Your task to perform on an android device: toggle notification dots Image 0: 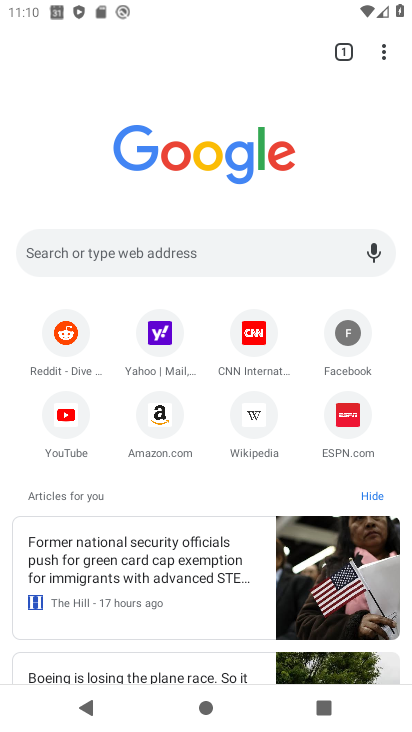
Step 0: press home button
Your task to perform on an android device: toggle notification dots Image 1: 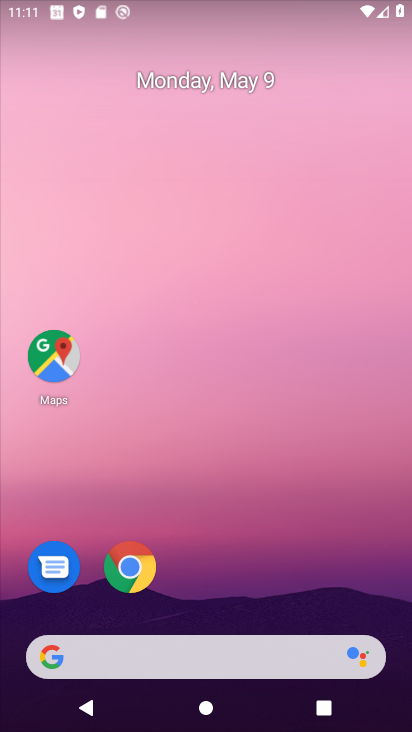
Step 1: drag from (395, 607) to (278, 41)
Your task to perform on an android device: toggle notification dots Image 2: 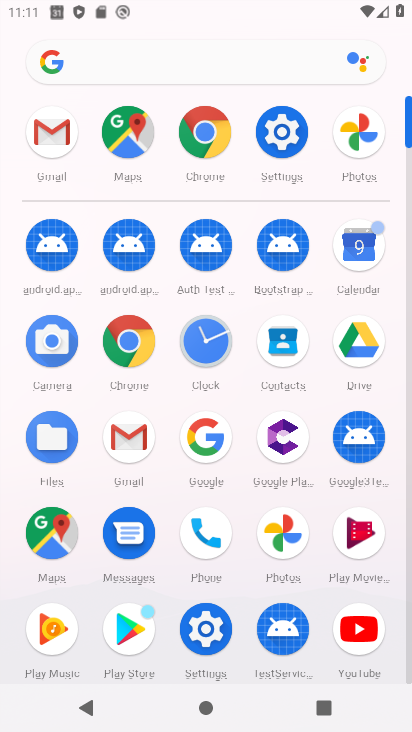
Step 2: click (216, 632)
Your task to perform on an android device: toggle notification dots Image 3: 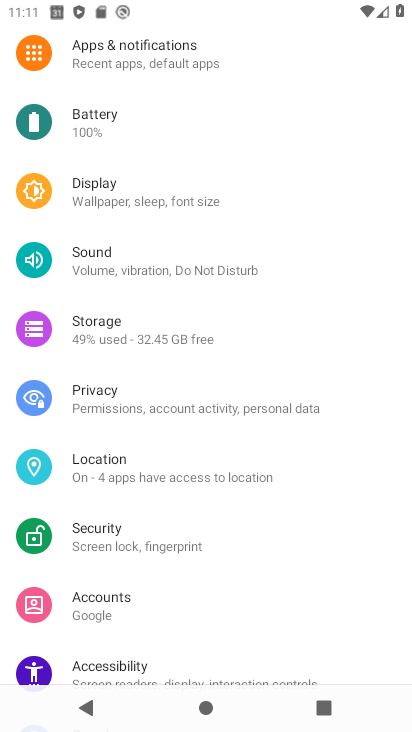
Step 3: click (183, 62)
Your task to perform on an android device: toggle notification dots Image 4: 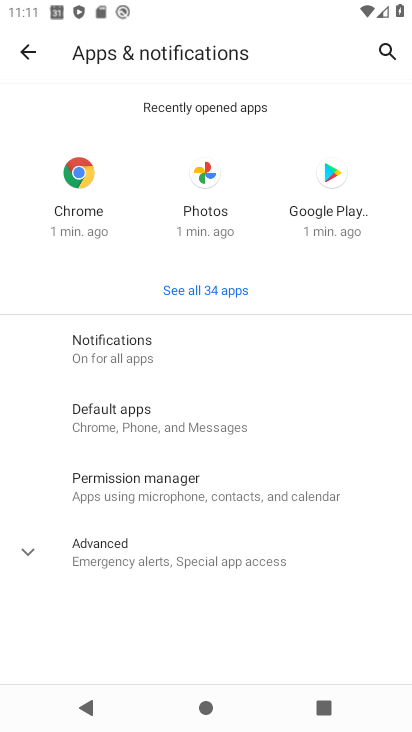
Step 4: click (175, 362)
Your task to perform on an android device: toggle notification dots Image 5: 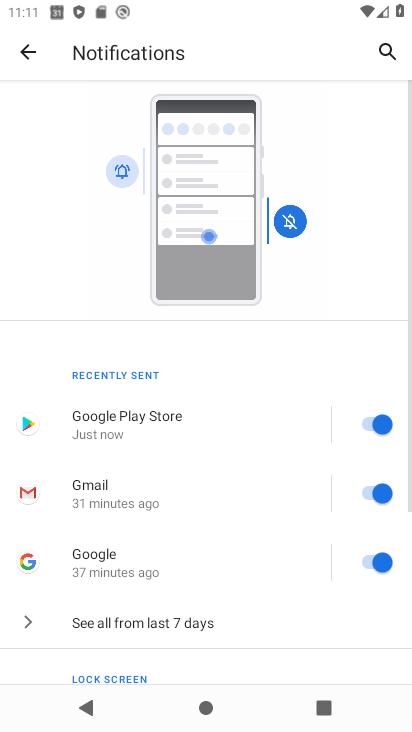
Step 5: drag from (175, 594) to (115, 39)
Your task to perform on an android device: toggle notification dots Image 6: 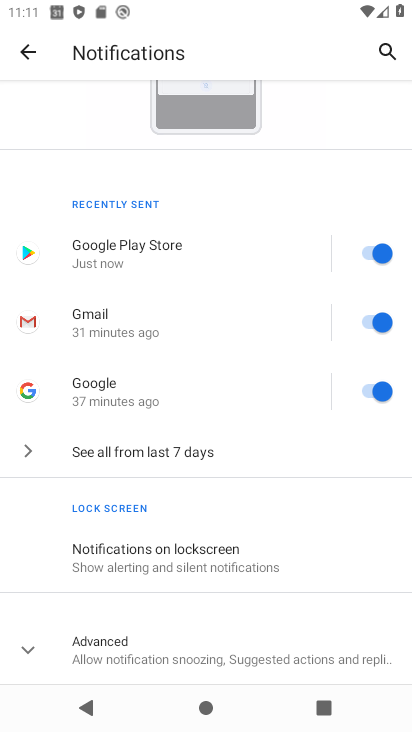
Step 6: click (97, 663)
Your task to perform on an android device: toggle notification dots Image 7: 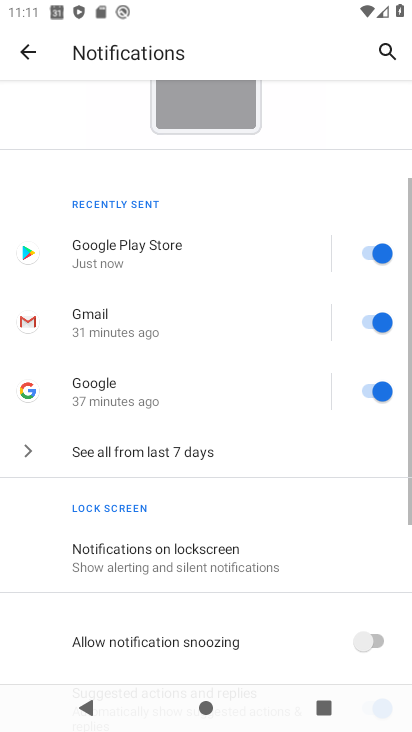
Step 7: drag from (115, 634) to (240, 102)
Your task to perform on an android device: toggle notification dots Image 8: 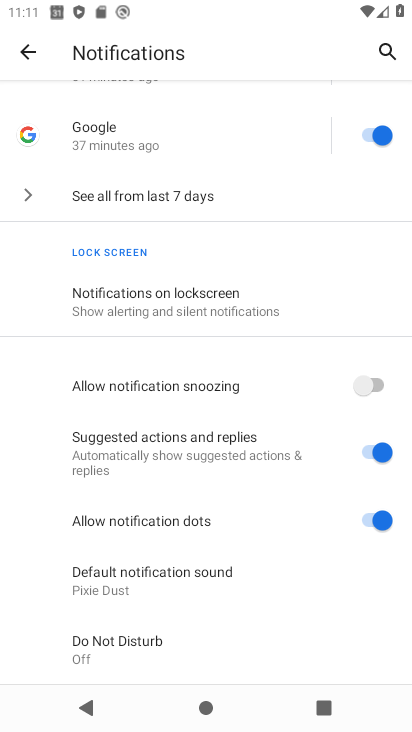
Step 8: click (252, 514)
Your task to perform on an android device: toggle notification dots Image 9: 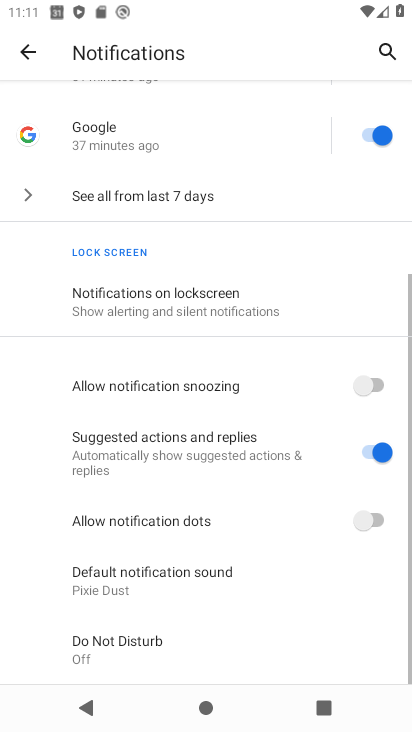
Step 9: task complete